Your task to perform on an android device: What's on my calendar tomorrow? Image 0: 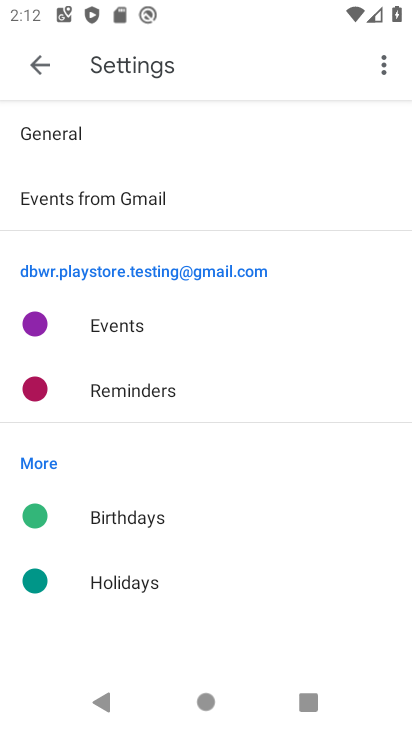
Step 0: press home button
Your task to perform on an android device: What's on my calendar tomorrow? Image 1: 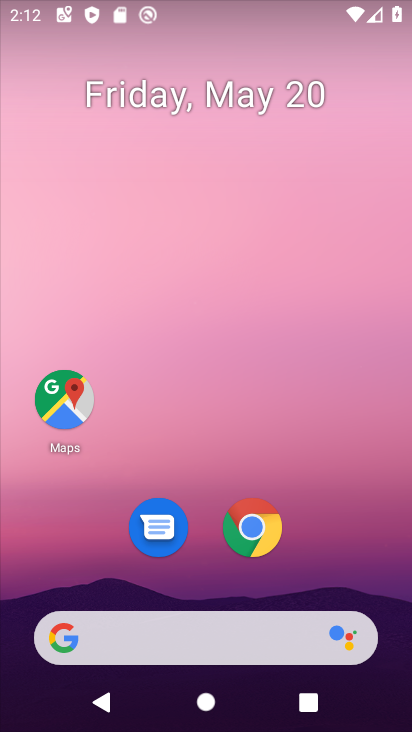
Step 1: drag from (149, 652) to (147, 259)
Your task to perform on an android device: What's on my calendar tomorrow? Image 2: 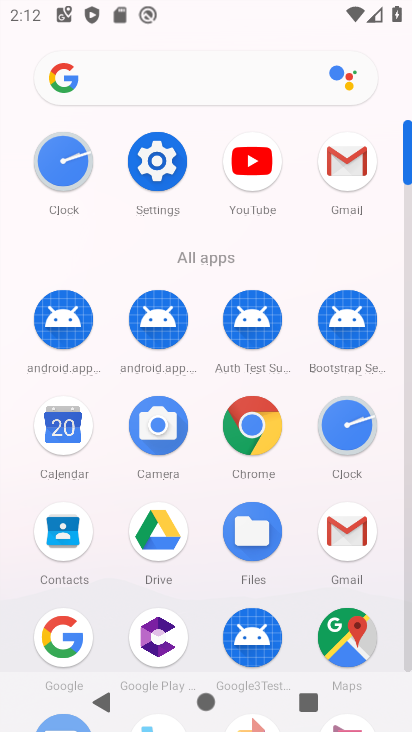
Step 2: click (57, 529)
Your task to perform on an android device: What's on my calendar tomorrow? Image 3: 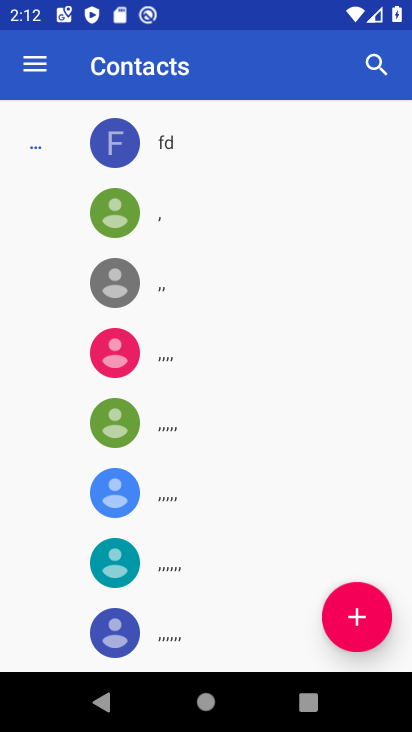
Step 3: press home button
Your task to perform on an android device: What's on my calendar tomorrow? Image 4: 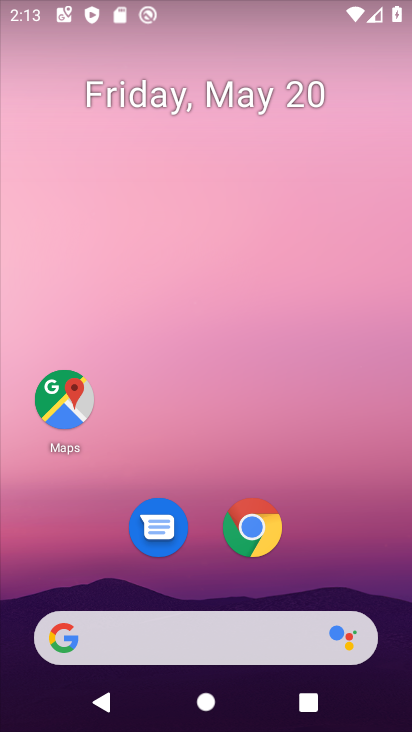
Step 4: drag from (263, 648) to (243, 74)
Your task to perform on an android device: What's on my calendar tomorrow? Image 5: 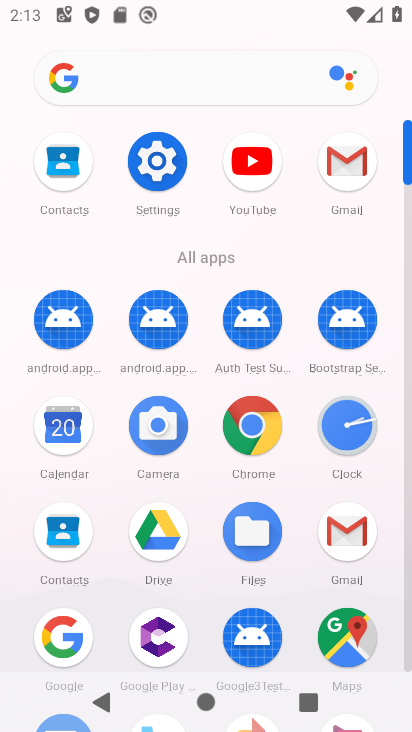
Step 5: click (68, 444)
Your task to perform on an android device: What's on my calendar tomorrow? Image 6: 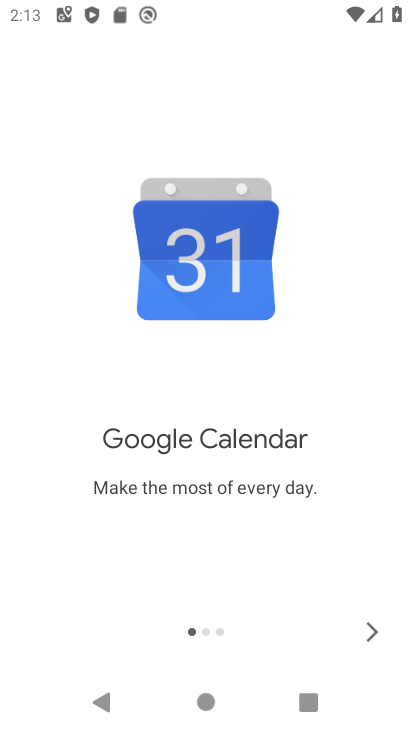
Step 6: click (380, 626)
Your task to perform on an android device: What's on my calendar tomorrow? Image 7: 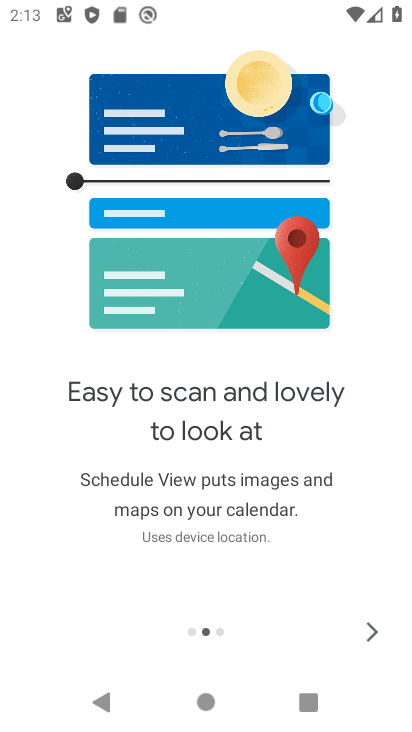
Step 7: click (374, 627)
Your task to perform on an android device: What's on my calendar tomorrow? Image 8: 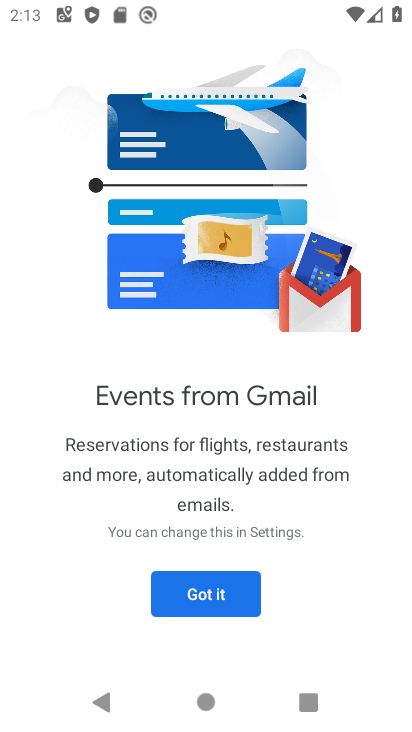
Step 8: click (223, 603)
Your task to perform on an android device: What's on my calendar tomorrow? Image 9: 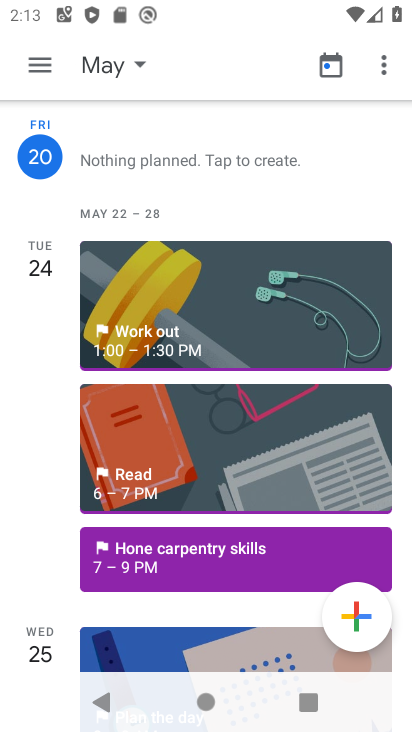
Step 9: click (103, 62)
Your task to perform on an android device: What's on my calendar tomorrow? Image 10: 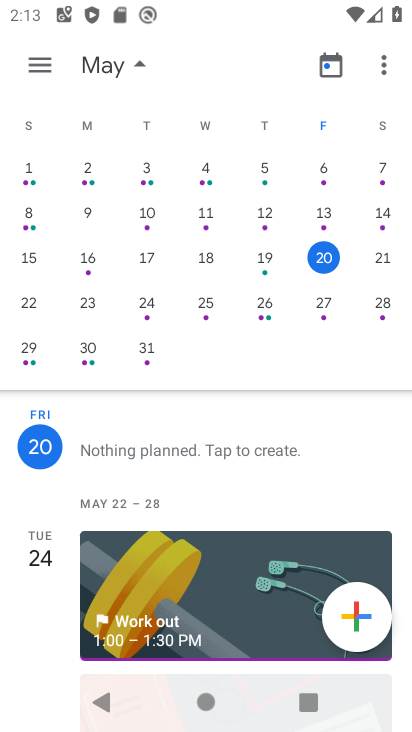
Step 10: click (368, 258)
Your task to perform on an android device: What's on my calendar tomorrow? Image 11: 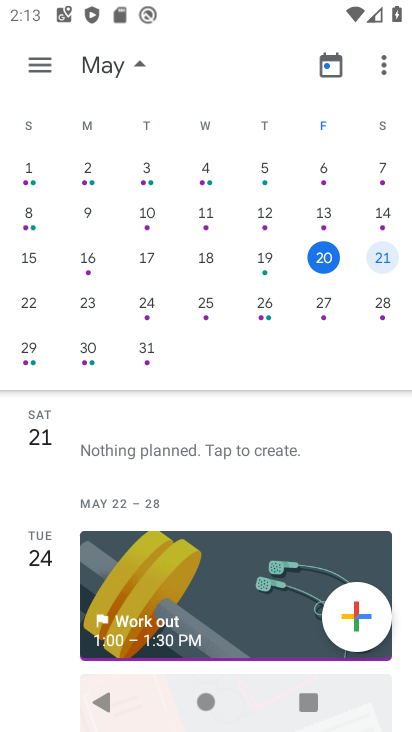
Step 11: task complete